Your task to perform on an android device: check the backup settings in the google photos Image 0: 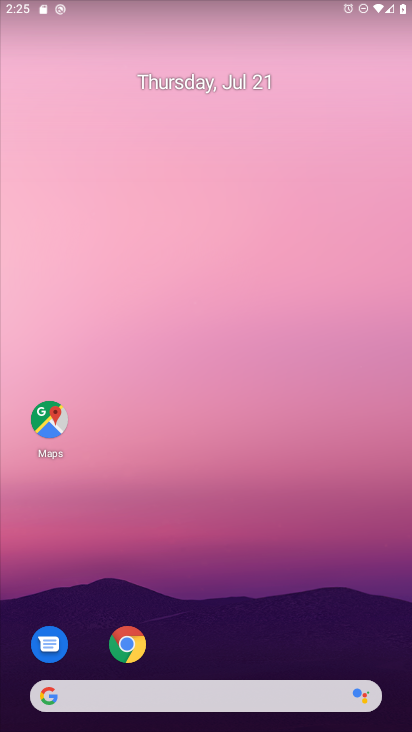
Step 0: drag from (185, 694) to (224, 309)
Your task to perform on an android device: check the backup settings in the google photos Image 1: 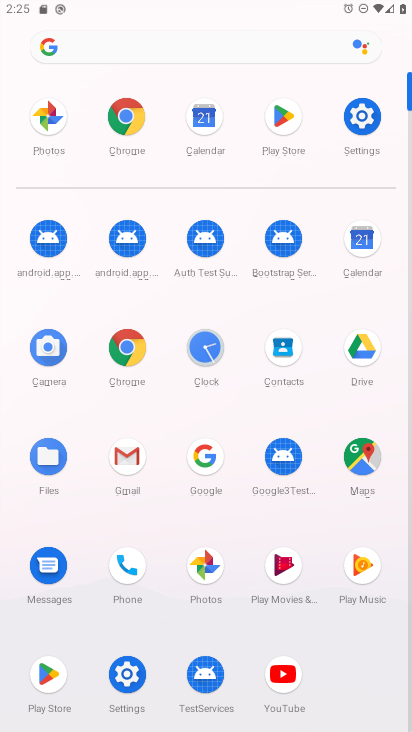
Step 1: click (199, 559)
Your task to perform on an android device: check the backup settings in the google photos Image 2: 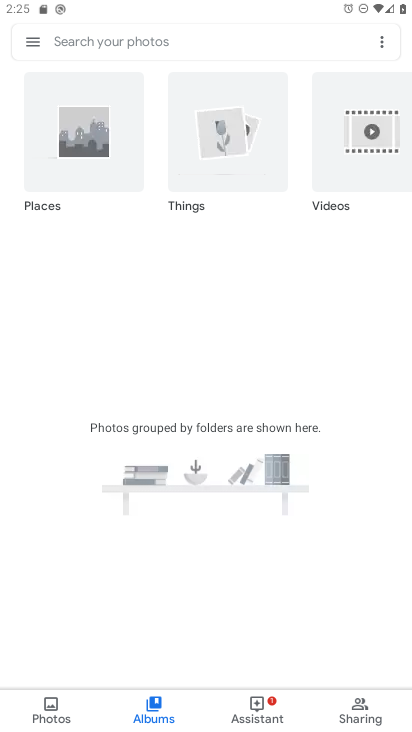
Step 2: click (31, 46)
Your task to perform on an android device: check the backup settings in the google photos Image 3: 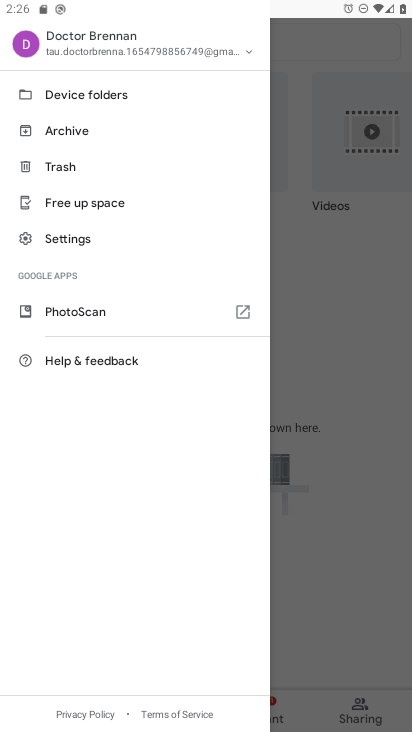
Step 3: click (67, 239)
Your task to perform on an android device: check the backup settings in the google photos Image 4: 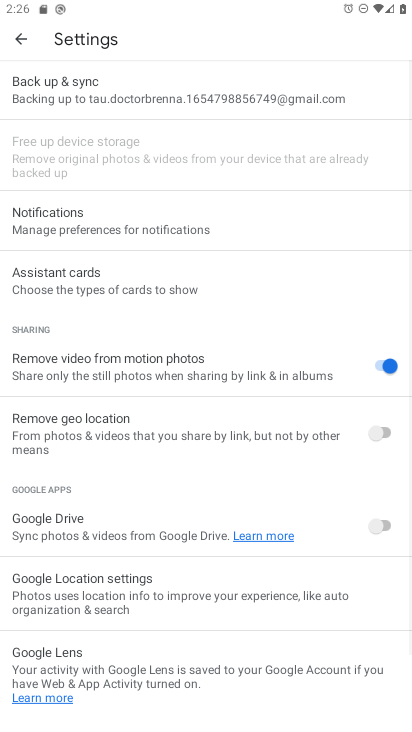
Step 4: click (81, 95)
Your task to perform on an android device: check the backup settings in the google photos Image 5: 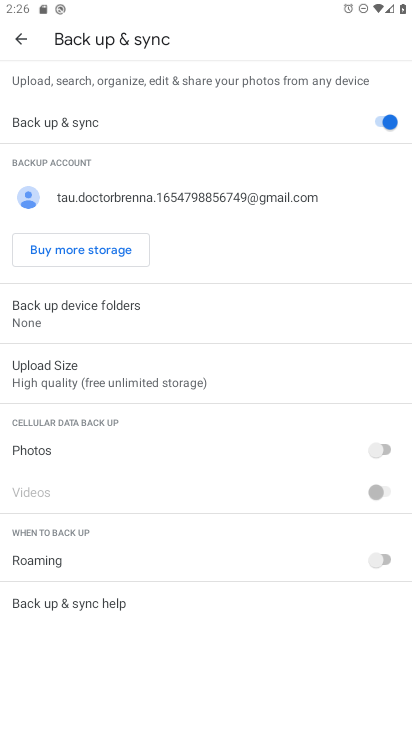
Step 5: task complete